Your task to perform on an android device: turn off airplane mode Image 0: 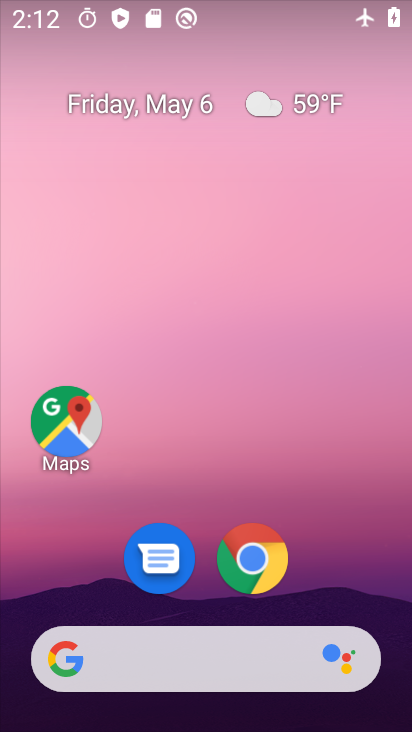
Step 0: drag from (221, 725) to (210, 122)
Your task to perform on an android device: turn off airplane mode Image 1: 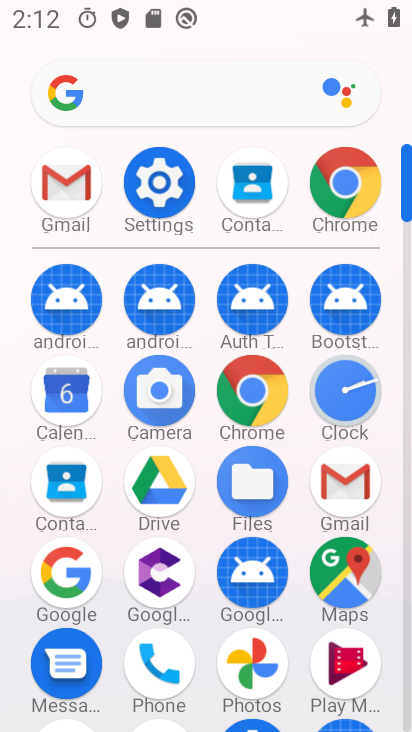
Step 1: click (162, 185)
Your task to perform on an android device: turn off airplane mode Image 2: 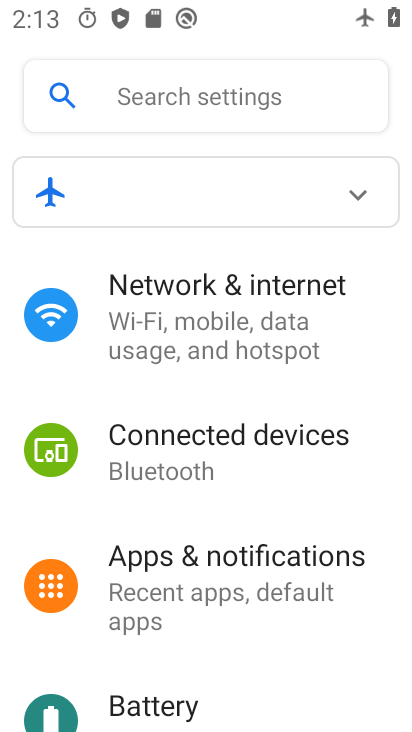
Step 2: click (187, 342)
Your task to perform on an android device: turn off airplane mode Image 3: 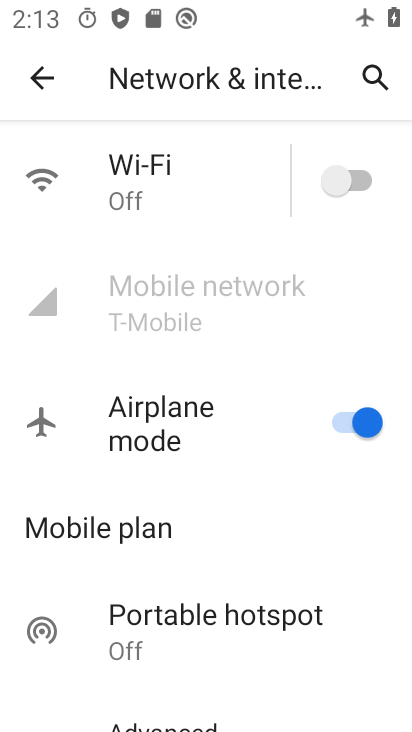
Step 3: click (347, 424)
Your task to perform on an android device: turn off airplane mode Image 4: 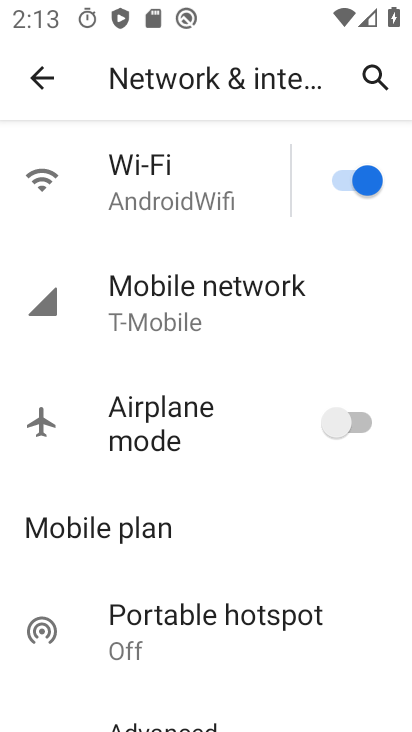
Step 4: task complete